Your task to perform on an android device: turn off smart reply in the gmail app Image 0: 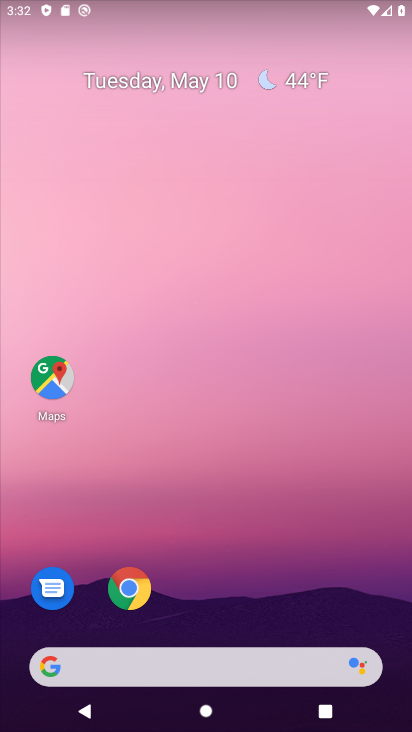
Step 0: drag from (293, 587) to (252, 95)
Your task to perform on an android device: turn off smart reply in the gmail app Image 1: 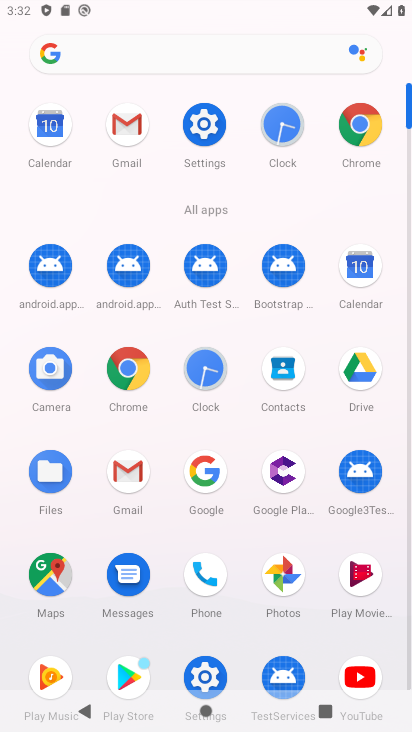
Step 1: click (131, 468)
Your task to perform on an android device: turn off smart reply in the gmail app Image 2: 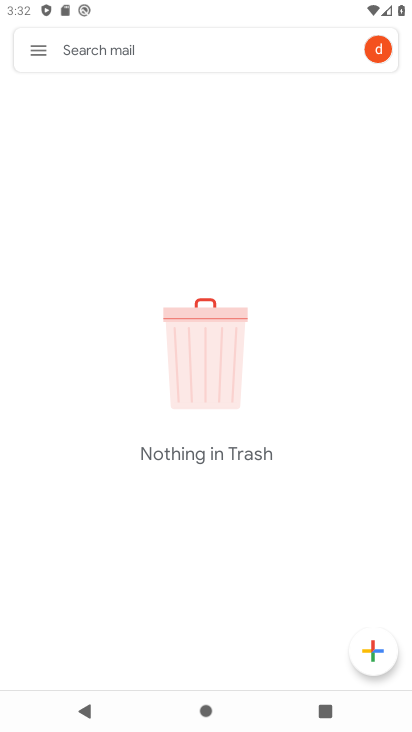
Step 2: click (48, 53)
Your task to perform on an android device: turn off smart reply in the gmail app Image 3: 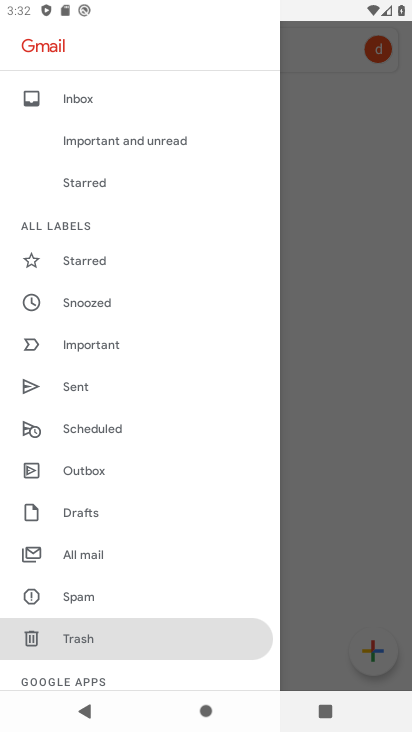
Step 3: drag from (134, 623) to (115, 308)
Your task to perform on an android device: turn off smart reply in the gmail app Image 4: 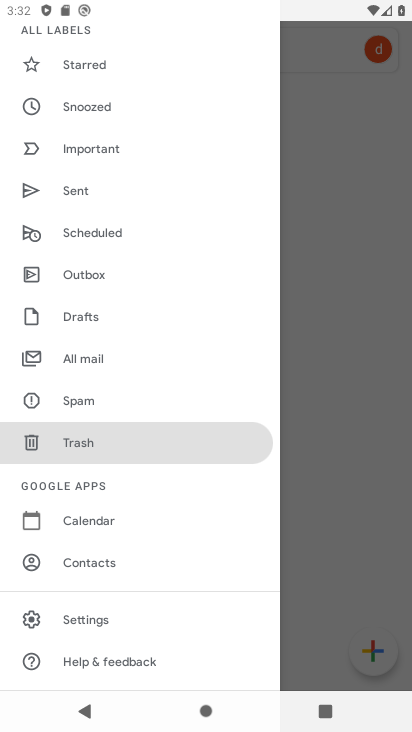
Step 4: click (123, 620)
Your task to perform on an android device: turn off smart reply in the gmail app Image 5: 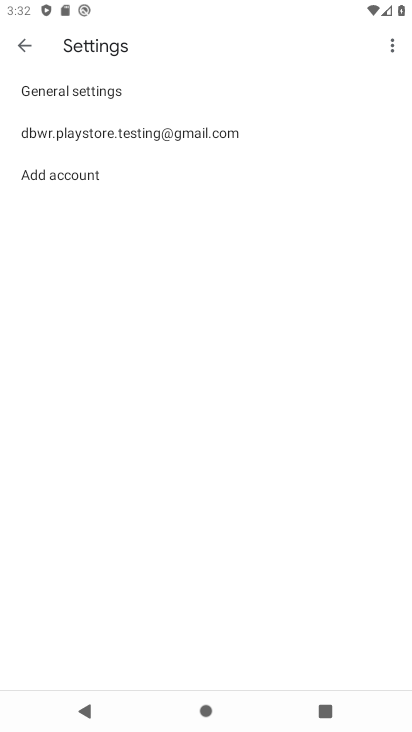
Step 5: click (131, 129)
Your task to perform on an android device: turn off smart reply in the gmail app Image 6: 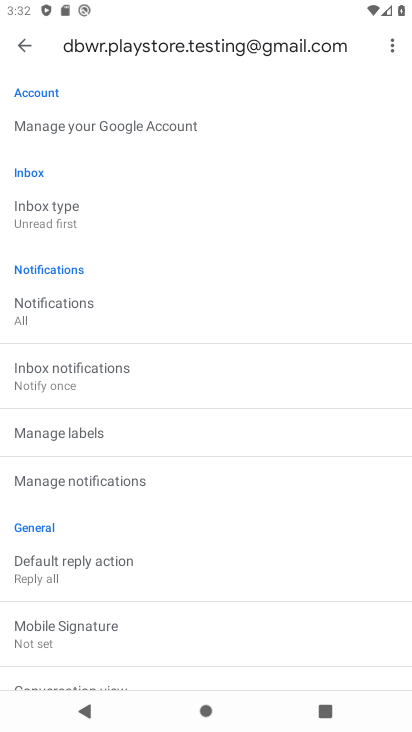
Step 6: drag from (191, 617) to (184, 96)
Your task to perform on an android device: turn off smart reply in the gmail app Image 7: 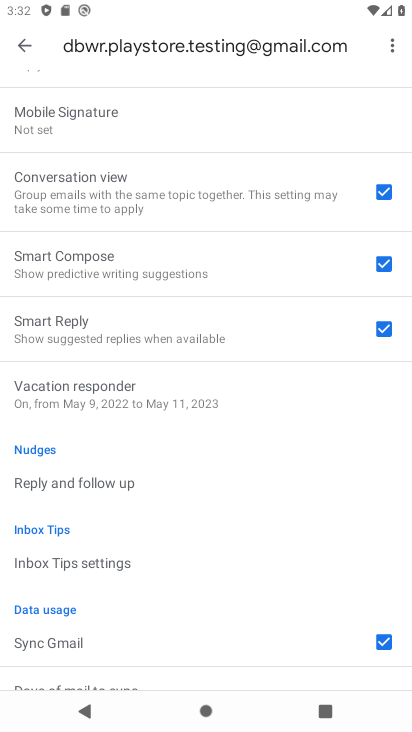
Step 7: drag from (148, 597) to (157, 452)
Your task to perform on an android device: turn off smart reply in the gmail app Image 8: 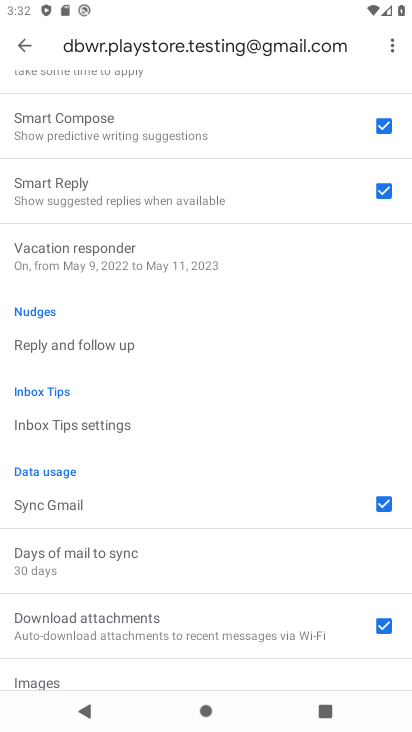
Step 8: click (385, 194)
Your task to perform on an android device: turn off smart reply in the gmail app Image 9: 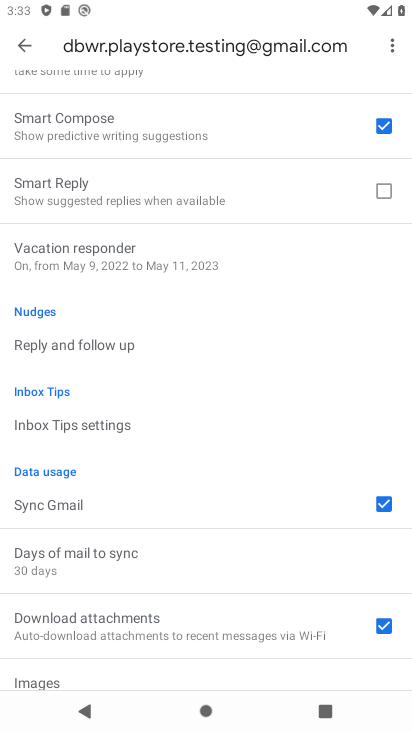
Step 9: task complete